Your task to perform on an android device: set default search engine in the chrome app Image 0: 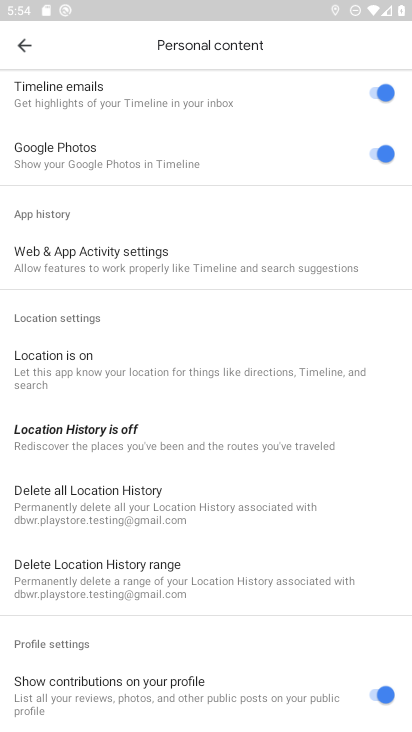
Step 0: press home button
Your task to perform on an android device: set default search engine in the chrome app Image 1: 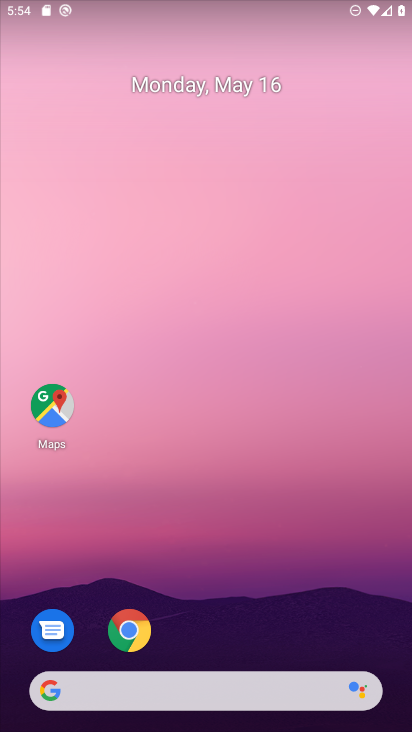
Step 1: click (138, 634)
Your task to perform on an android device: set default search engine in the chrome app Image 2: 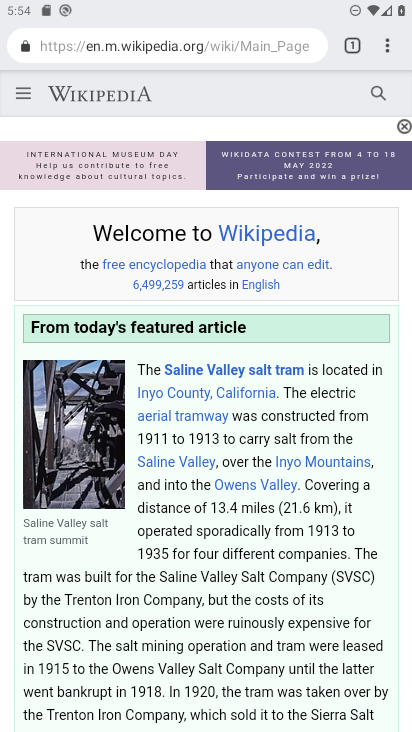
Step 2: click (279, 46)
Your task to perform on an android device: set default search engine in the chrome app Image 3: 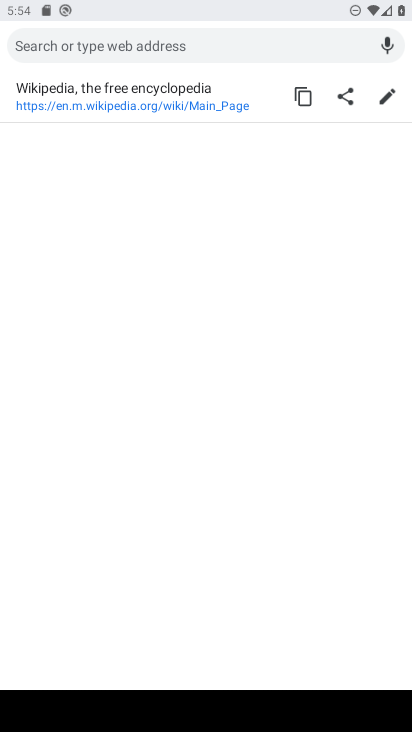
Step 3: press back button
Your task to perform on an android device: set default search engine in the chrome app Image 4: 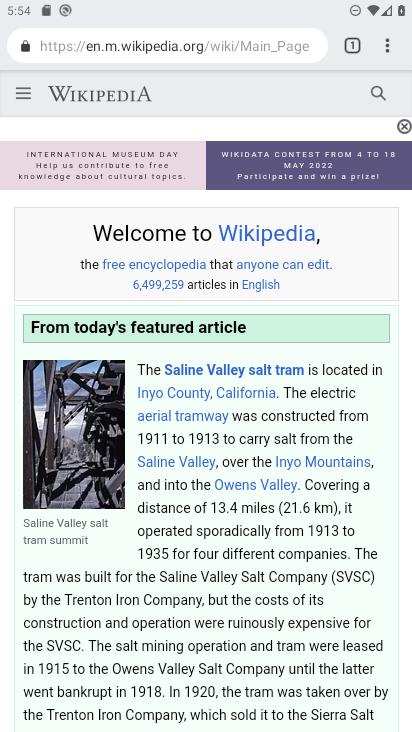
Step 4: drag from (388, 47) to (241, 554)
Your task to perform on an android device: set default search engine in the chrome app Image 5: 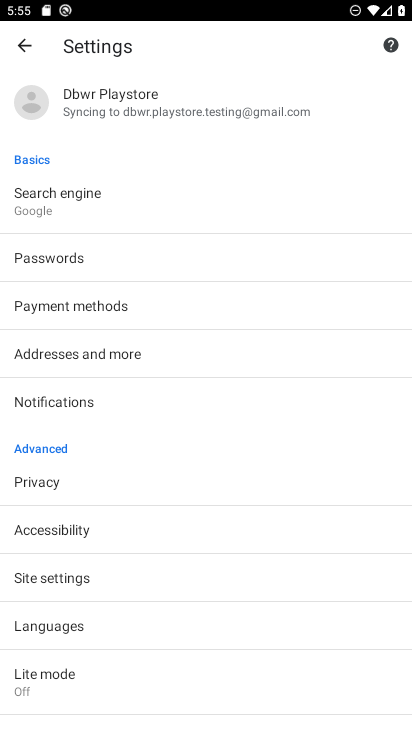
Step 5: click (89, 204)
Your task to perform on an android device: set default search engine in the chrome app Image 6: 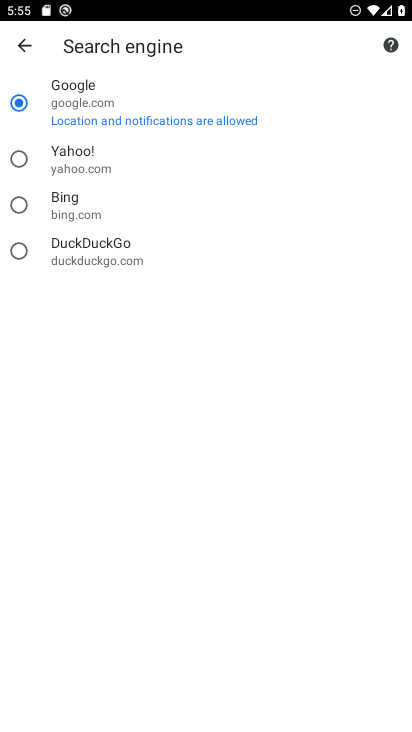
Step 6: task complete